Your task to perform on an android device: Check the weather Image 0: 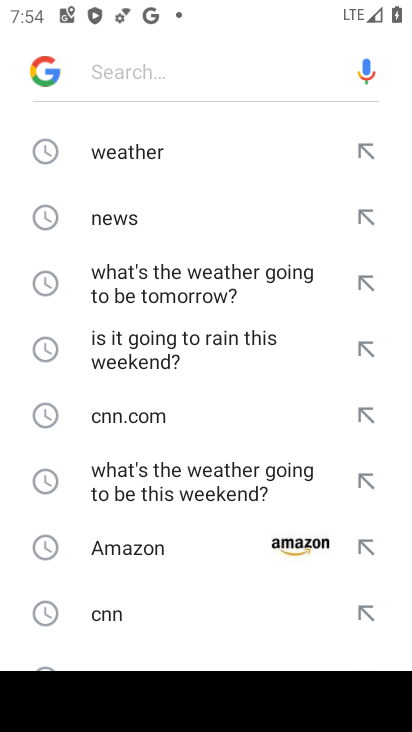
Step 0: click (132, 156)
Your task to perform on an android device: Check the weather Image 1: 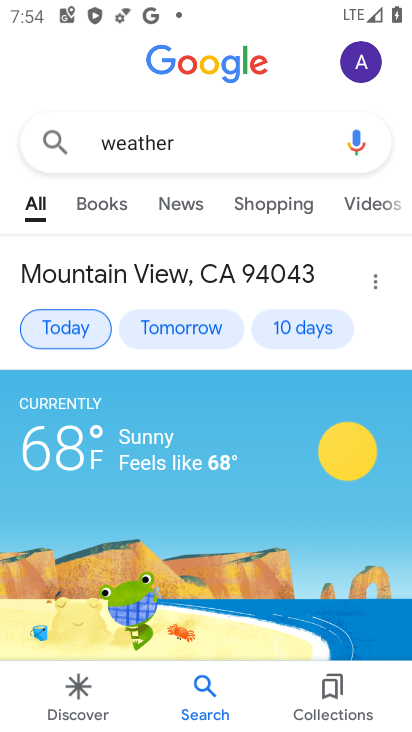
Step 1: click (85, 332)
Your task to perform on an android device: Check the weather Image 2: 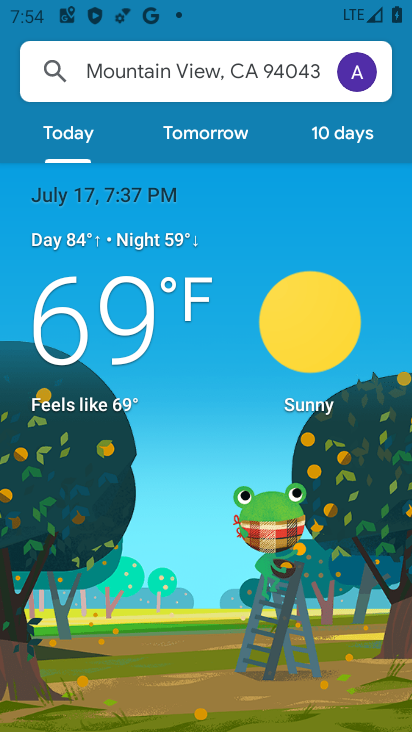
Step 2: drag from (226, 594) to (163, 173)
Your task to perform on an android device: Check the weather Image 3: 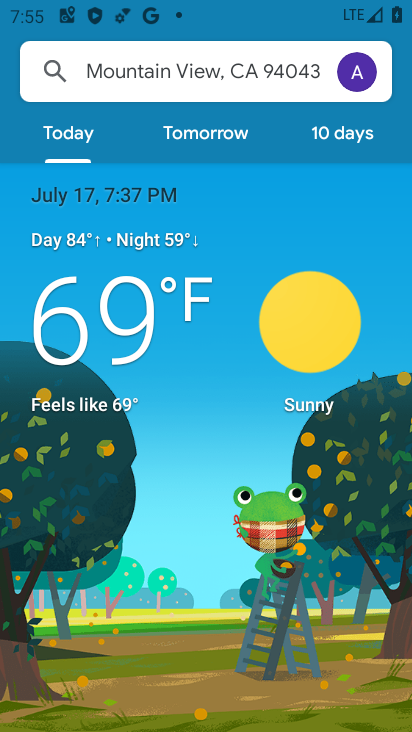
Step 3: drag from (223, 603) to (211, 162)
Your task to perform on an android device: Check the weather Image 4: 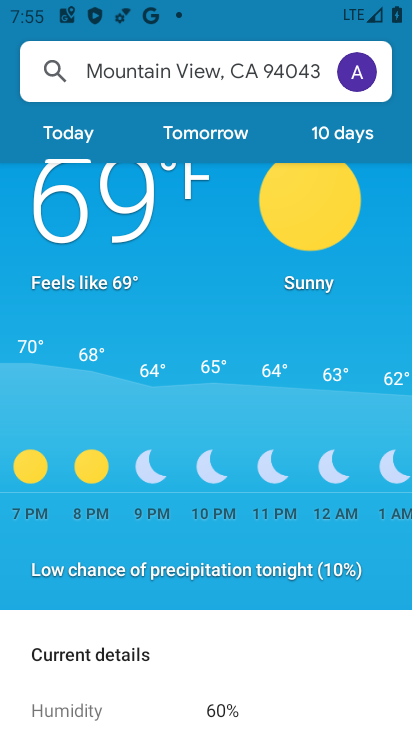
Step 4: drag from (211, 596) to (196, 181)
Your task to perform on an android device: Check the weather Image 5: 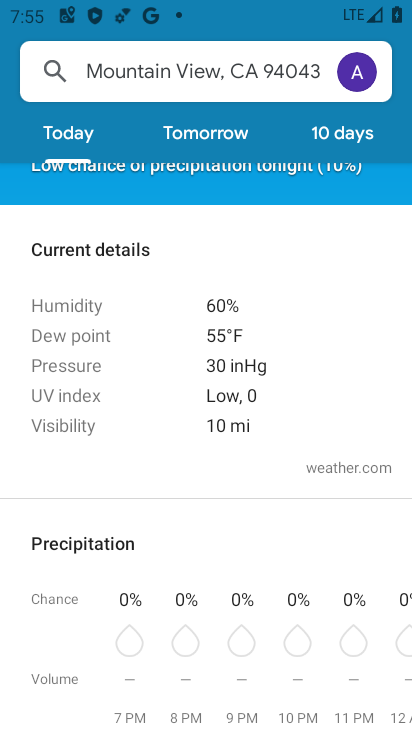
Step 5: drag from (209, 527) to (205, 262)
Your task to perform on an android device: Check the weather Image 6: 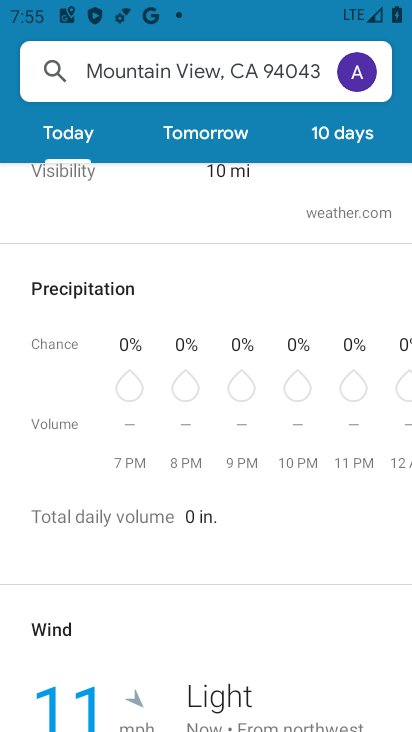
Step 6: drag from (368, 387) to (405, 506)
Your task to perform on an android device: Check the weather Image 7: 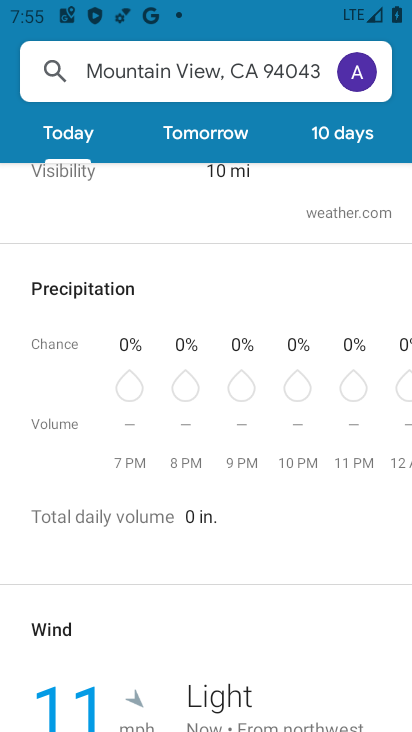
Step 7: drag from (352, 386) to (8, 502)
Your task to perform on an android device: Check the weather Image 8: 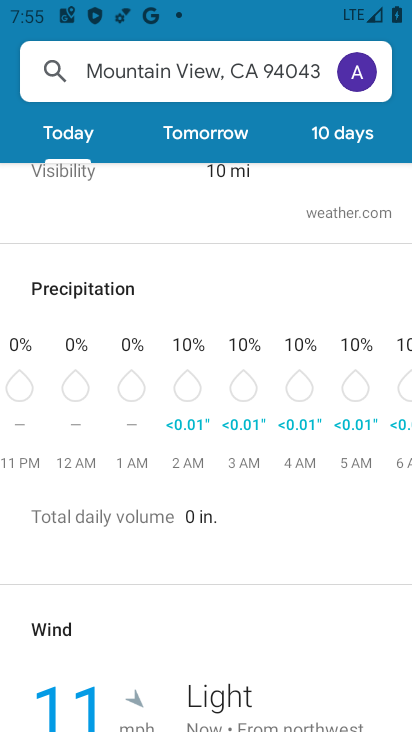
Step 8: click (313, 386)
Your task to perform on an android device: Check the weather Image 9: 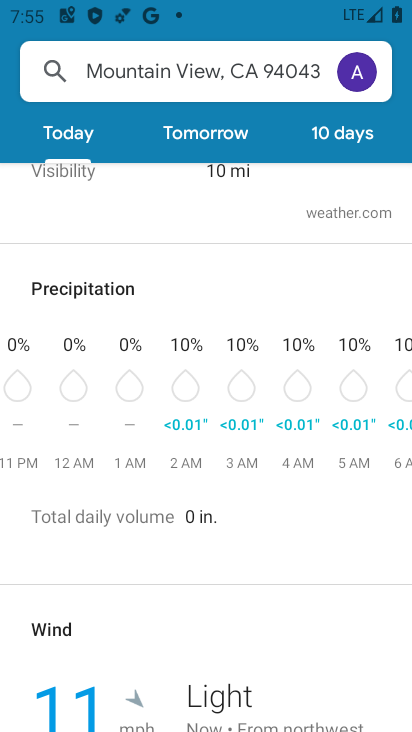
Step 9: click (256, 391)
Your task to perform on an android device: Check the weather Image 10: 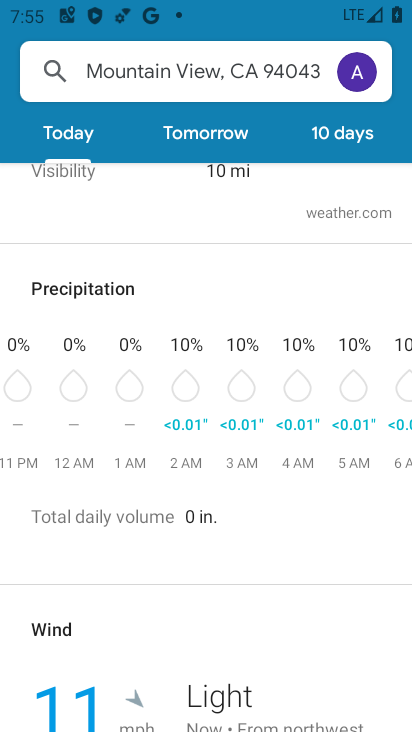
Step 10: task complete